Your task to perform on an android device: delete the emails in spam in the gmail app Image 0: 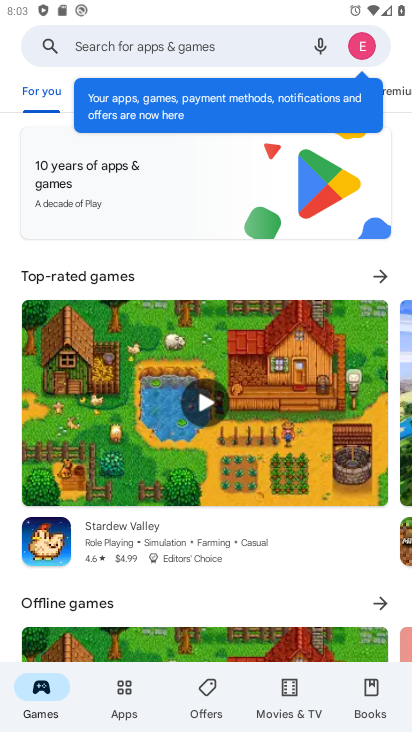
Step 0: press home button
Your task to perform on an android device: delete the emails in spam in the gmail app Image 1: 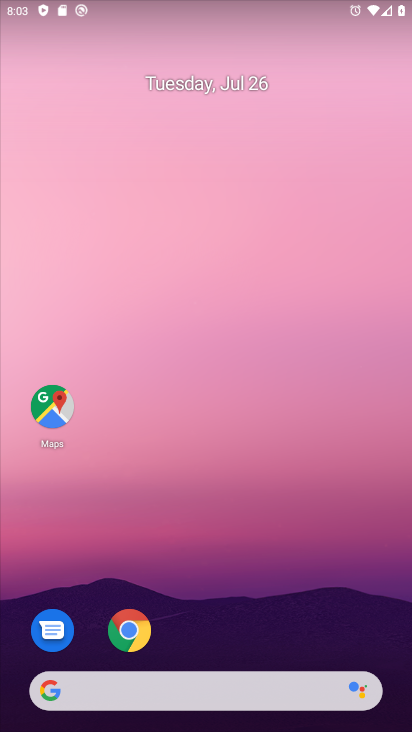
Step 1: drag from (208, 681) to (407, 55)
Your task to perform on an android device: delete the emails in spam in the gmail app Image 2: 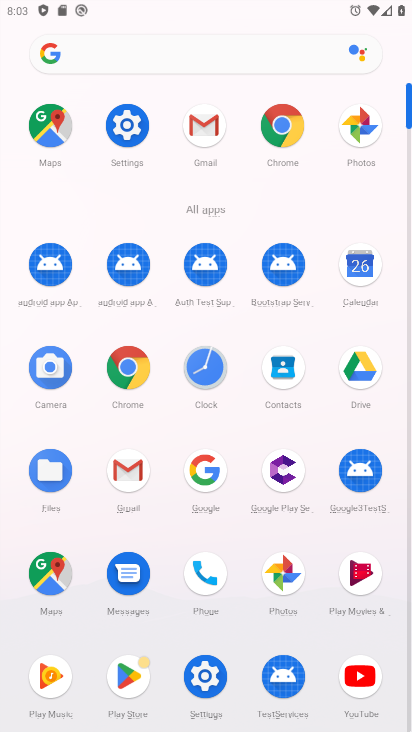
Step 2: click (204, 122)
Your task to perform on an android device: delete the emails in spam in the gmail app Image 3: 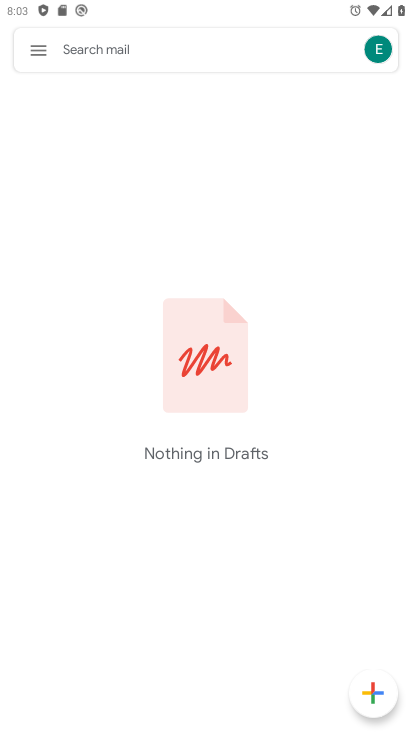
Step 3: click (35, 50)
Your task to perform on an android device: delete the emails in spam in the gmail app Image 4: 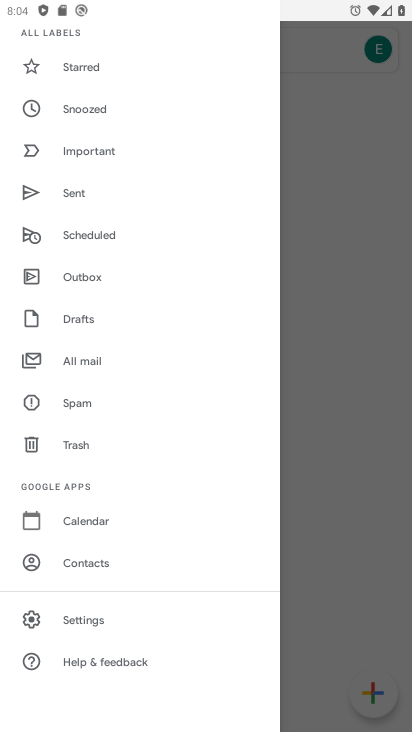
Step 4: click (80, 405)
Your task to perform on an android device: delete the emails in spam in the gmail app Image 5: 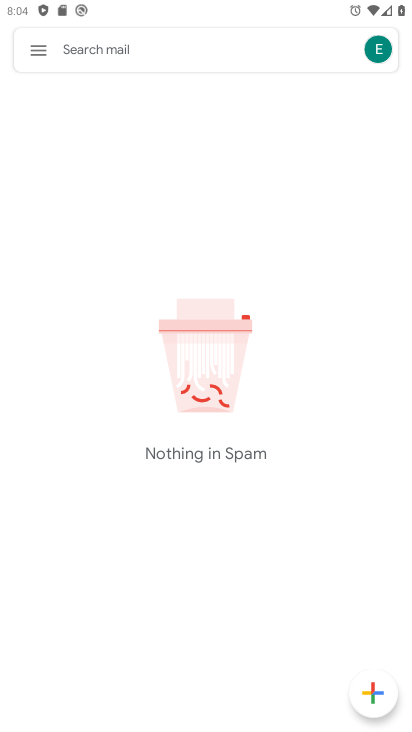
Step 5: task complete